Your task to perform on an android device: toggle javascript in the chrome app Image 0: 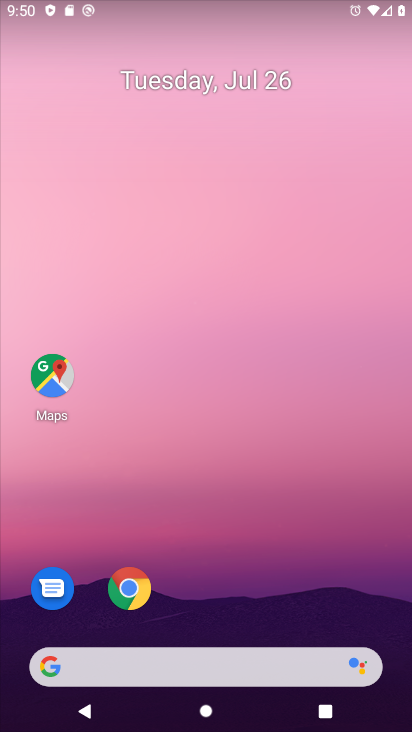
Step 0: click (115, 594)
Your task to perform on an android device: toggle javascript in the chrome app Image 1: 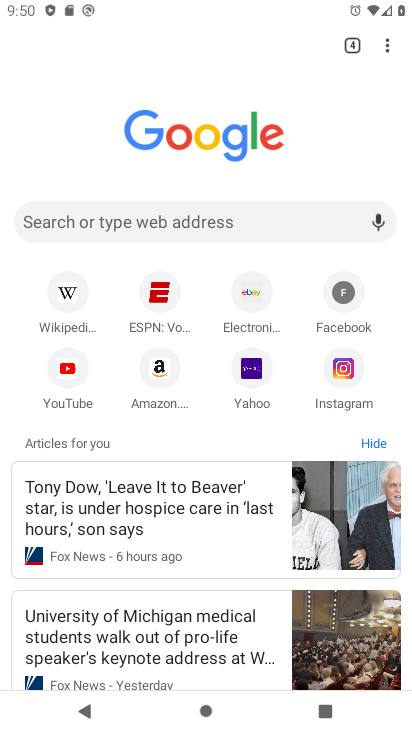
Step 1: drag from (383, 48) to (253, 385)
Your task to perform on an android device: toggle javascript in the chrome app Image 2: 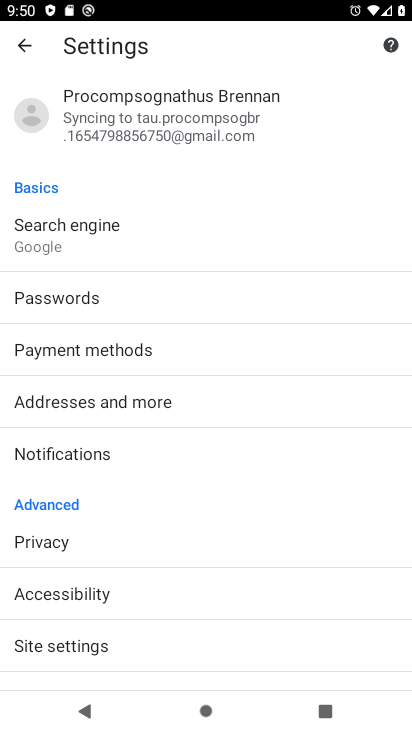
Step 2: click (96, 641)
Your task to perform on an android device: toggle javascript in the chrome app Image 3: 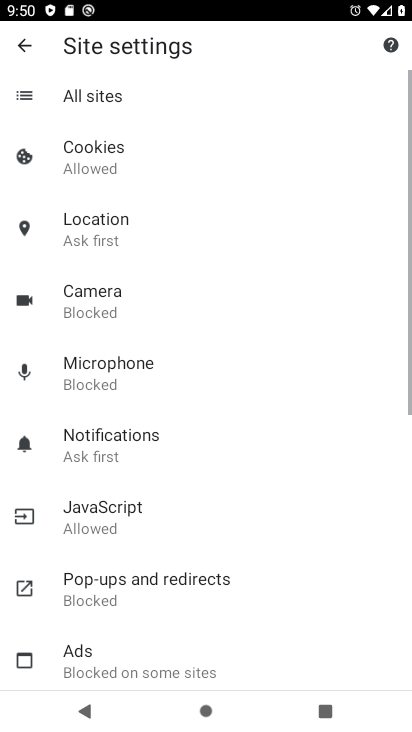
Step 3: drag from (98, 613) to (143, 400)
Your task to perform on an android device: toggle javascript in the chrome app Image 4: 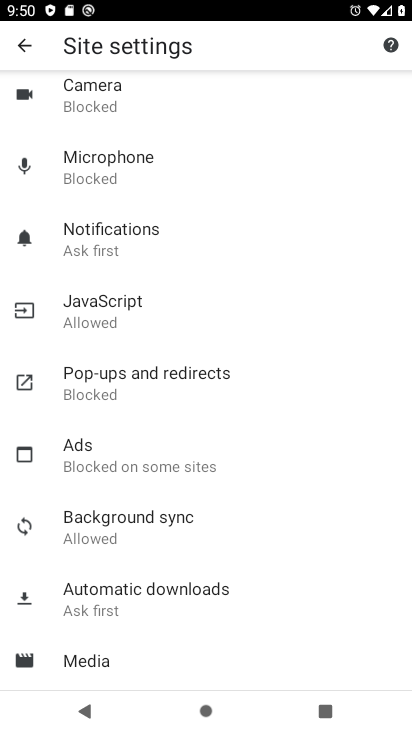
Step 4: click (129, 318)
Your task to perform on an android device: toggle javascript in the chrome app Image 5: 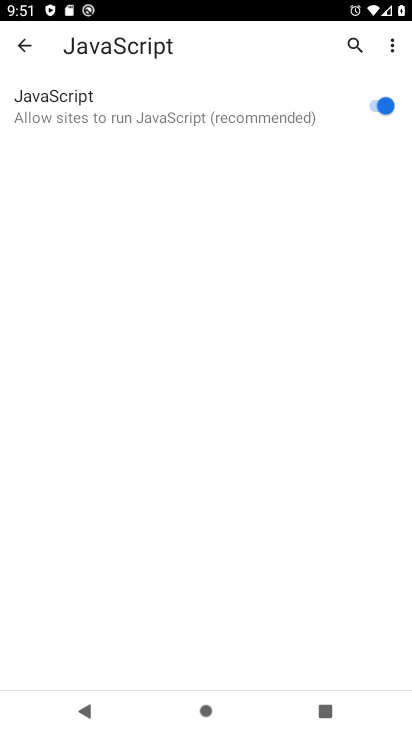
Step 5: click (378, 106)
Your task to perform on an android device: toggle javascript in the chrome app Image 6: 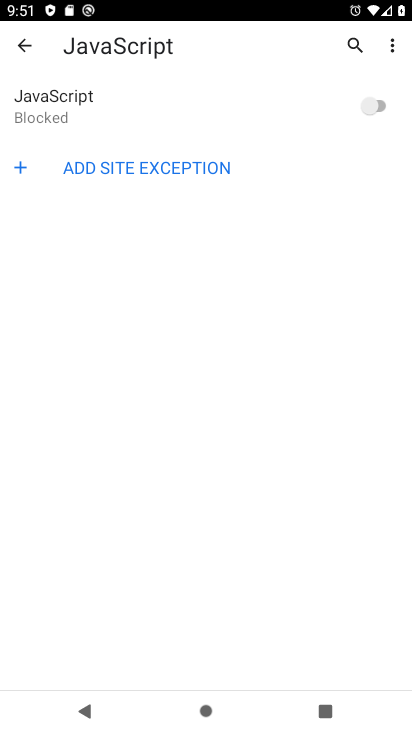
Step 6: task complete